Your task to perform on an android device: Show me the alarms in the clock app Image 0: 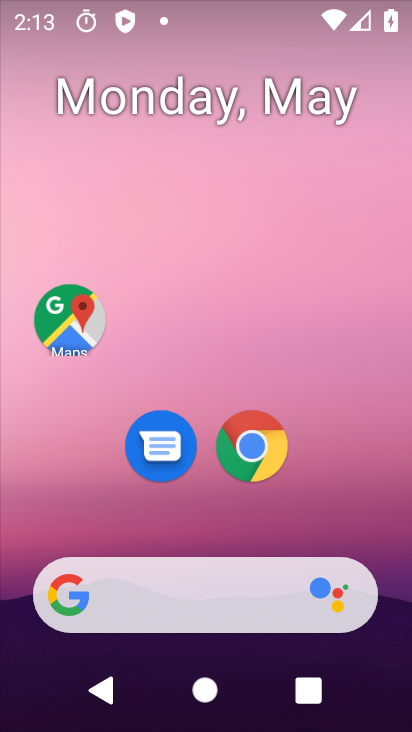
Step 0: drag from (211, 576) to (152, 1)
Your task to perform on an android device: Show me the alarms in the clock app Image 1: 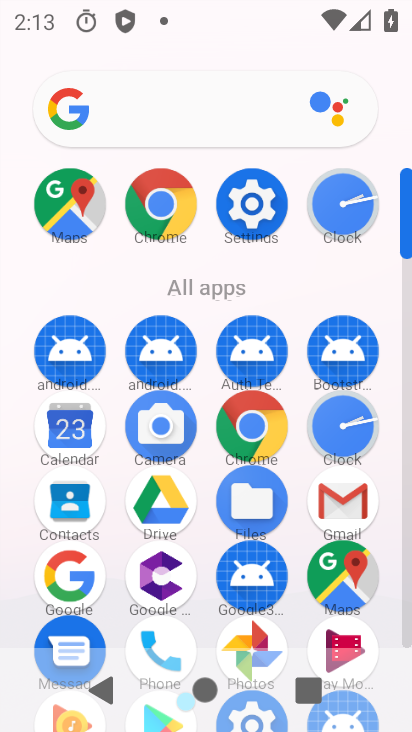
Step 1: click (334, 434)
Your task to perform on an android device: Show me the alarms in the clock app Image 2: 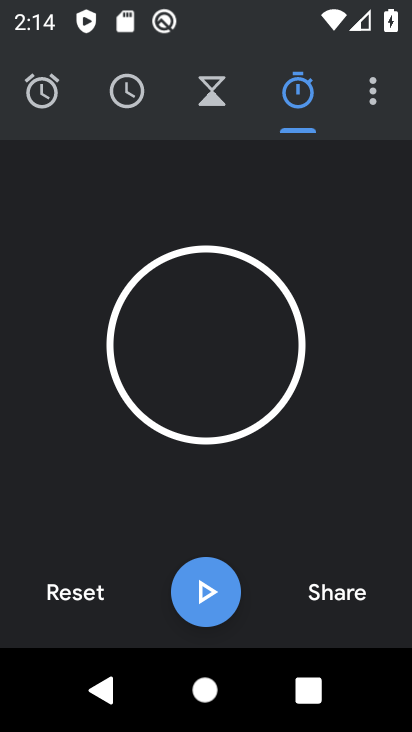
Step 2: click (41, 73)
Your task to perform on an android device: Show me the alarms in the clock app Image 3: 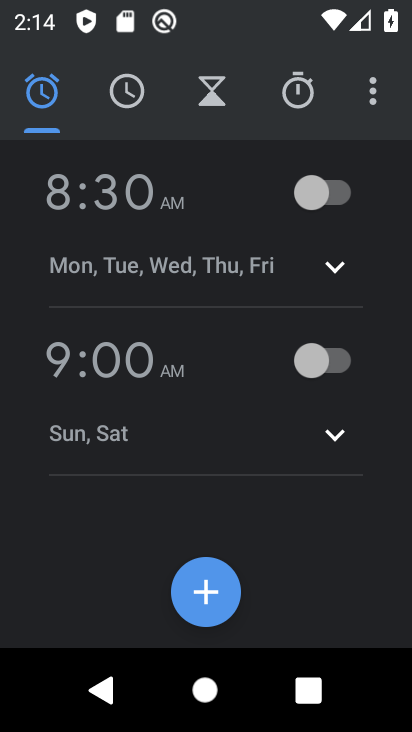
Step 3: task complete